Your task to perform on an android device: Go to calendar. Show me events next week Image 0: 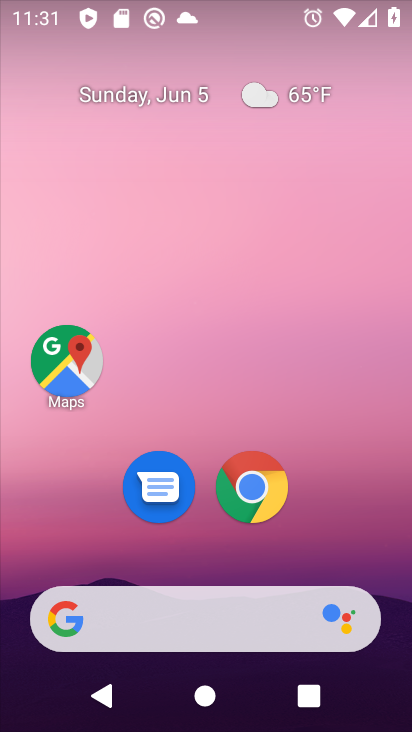
Step 0: drag from (363, 493) to (299, 25)
Your task to perform on an android device: Go to calendar. Show me events next week Image 1: 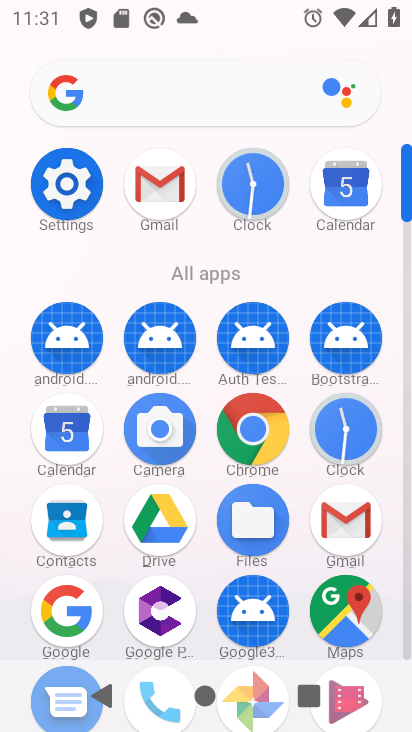
Step 1: drag from (296, 302) to (294, 122)
Your task to perform on an android device: Go to calendar. Show me events next week Image 2: 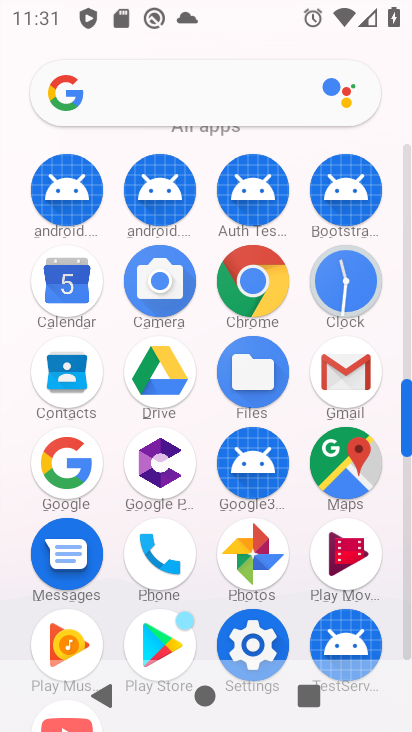
Step 2: drag from (297, 339) to (292, 194)
Your task to perform on an android device: Go to calendar. Show me events next week Image 3: 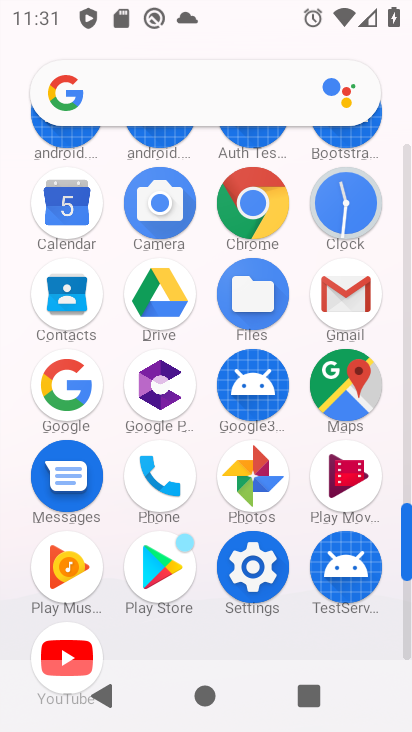
Step 3: click (64, 203)
Your task to perform on an android device: Go to calendar. Show me events next week Image 4: 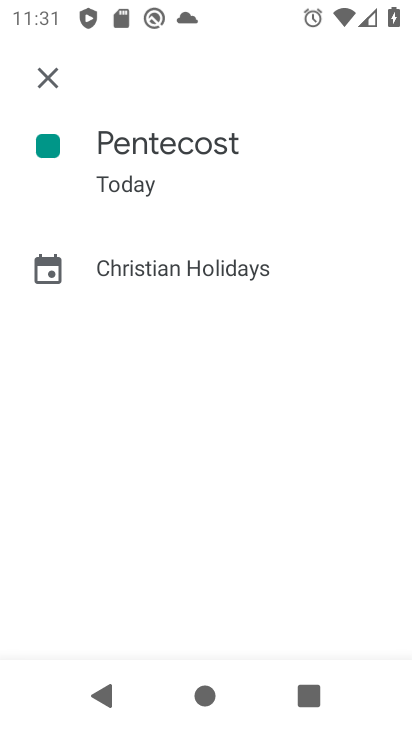
Step 4: click (46, 77)
Your task to perform on an android device: Go to calendar. Show me events next week Image 5: 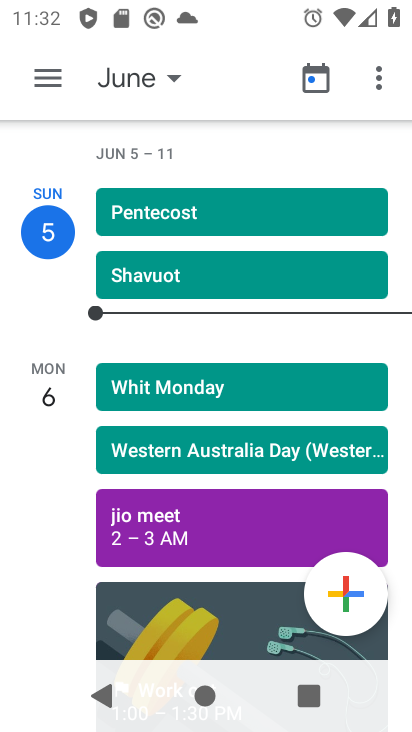
Step 5: click (316, 81)
Your task to perform on an android device: Go to calendar. Show me events next week Image 6: 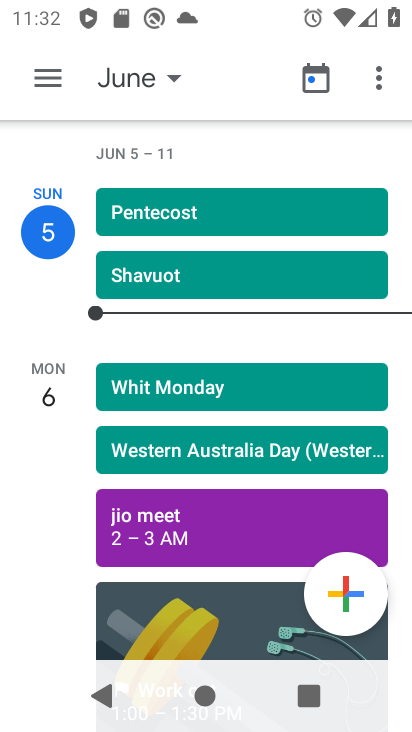
Step 6: click (173, 79)
Your task to perform on an android device: Go to calendar. Show me events next week Image 7: 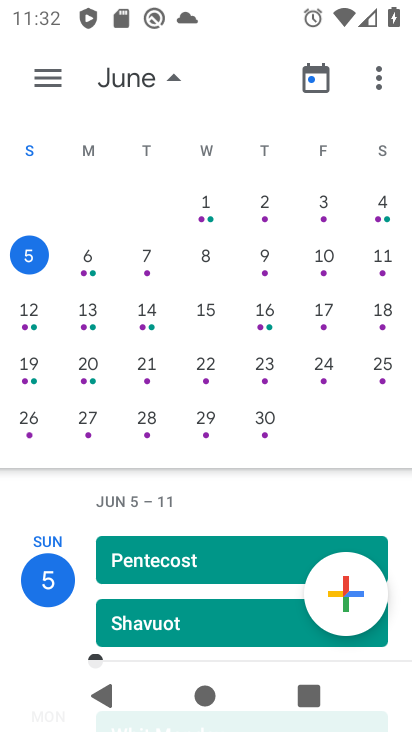
Step 7: click (95, 300)
Your task to perform on an android device: Go to calendar. Show me events next week Image 8: 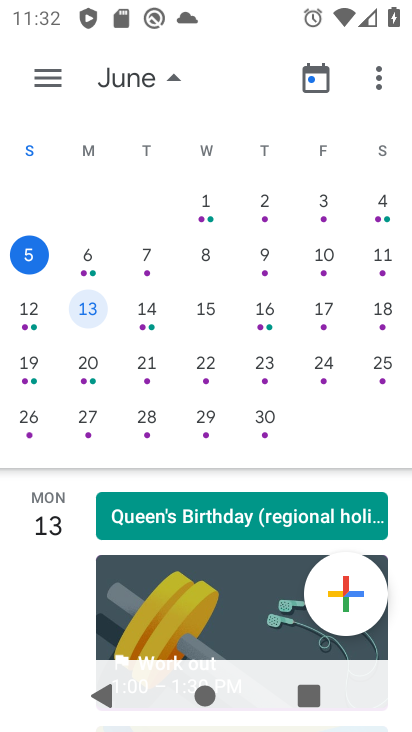
Step 8: click (44, 75)
Your task to perform on an android device: Go to calendar. Show me events next week Image 9: 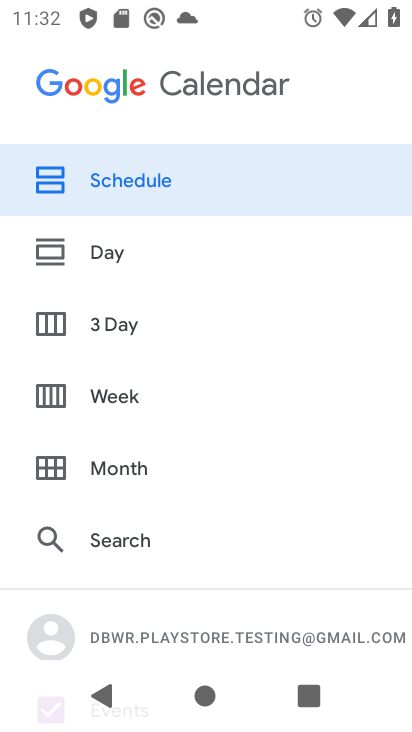
Step 9: click (113, 403)
Your task to perform on an android device: Go to calendar. Show me events next week Image 10: 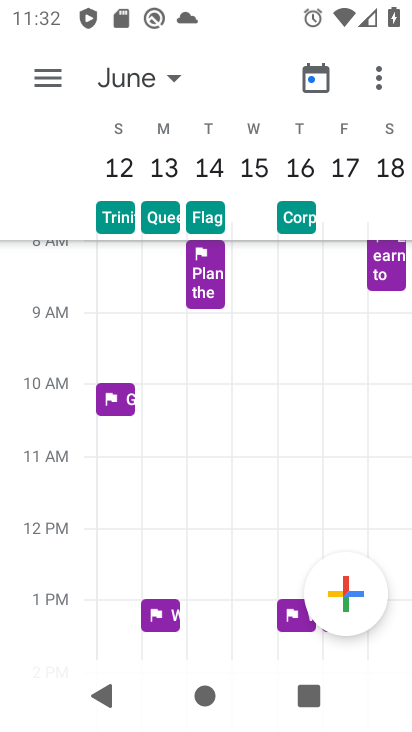
Step 10: task complete